Your task to perform on an android device: Go to Yahoo.com Image 0: 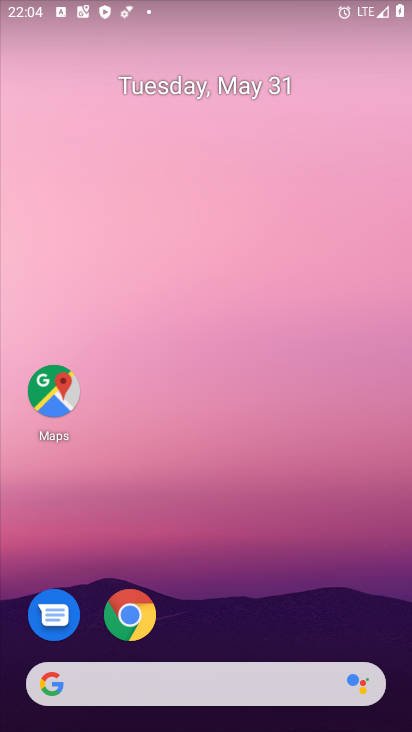
Step 0: click (135, 613)
Your task to perform on an android device: Go to Yahoo.com Image 1: 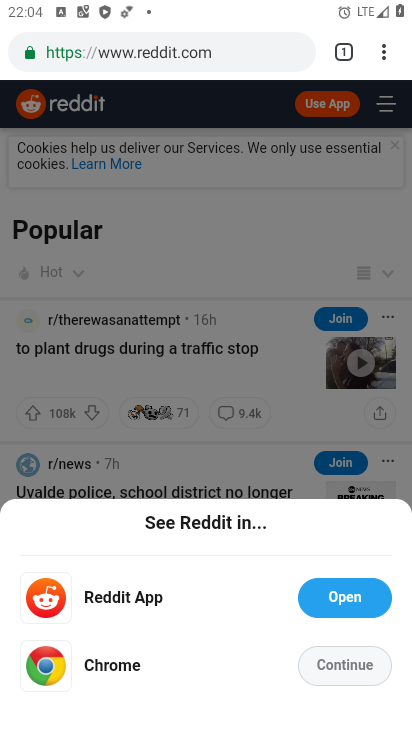
Step 1: click (253, 51)
Your task to perform on an android device: Go to Yahoo.com Image 2: 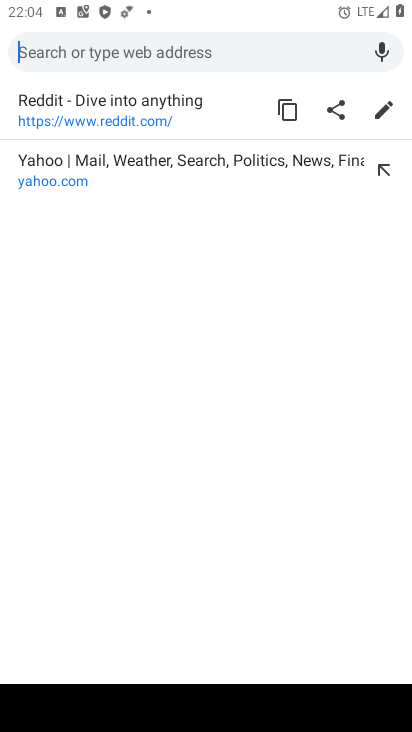
Step 2: type "yahoo.com"
Your task to perform on an android device: Go to Yahoo.com Image 3: 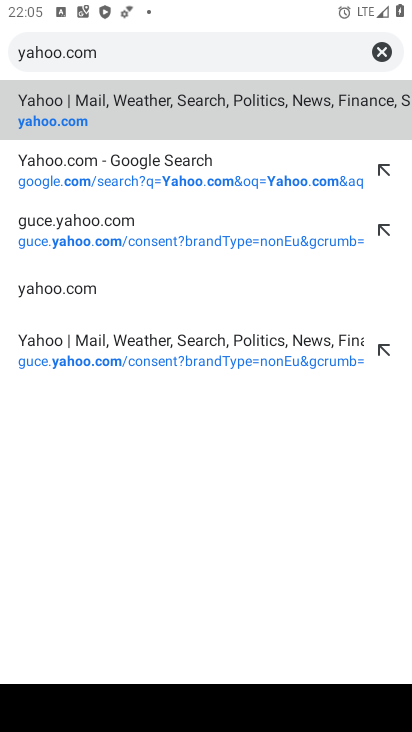
Step 3: click (54, 105)
Your task to perform on an android device: Go to Yahoo.com Image 4: 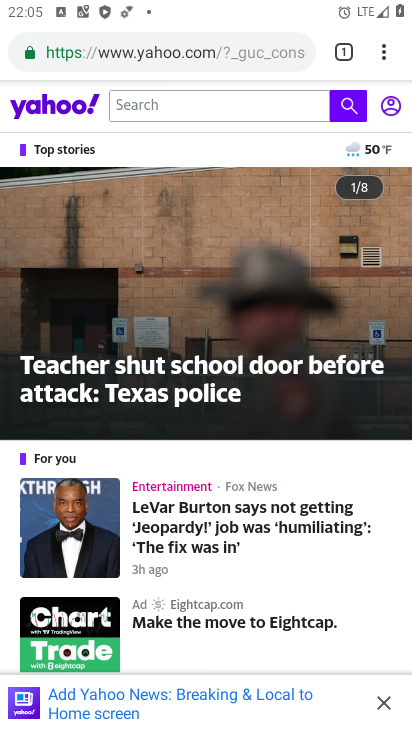
Step 4: task complete